Your task to perform on an android device: turn notification dots on Image 0: 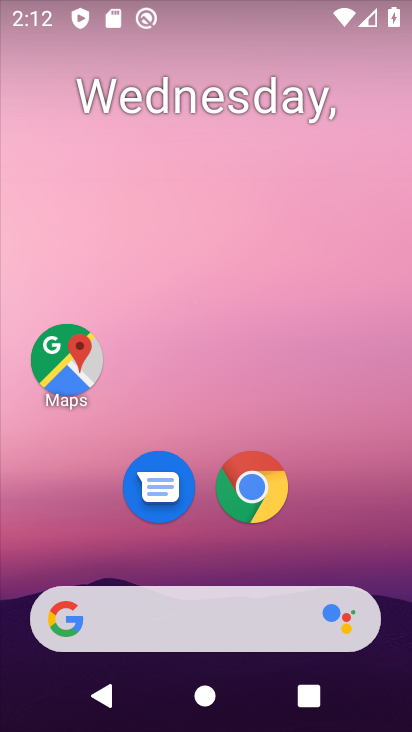
Step 0: drag from (261, 697) to (260, 39)
Your task to perform on an android device: turn notification dots on Image 1: 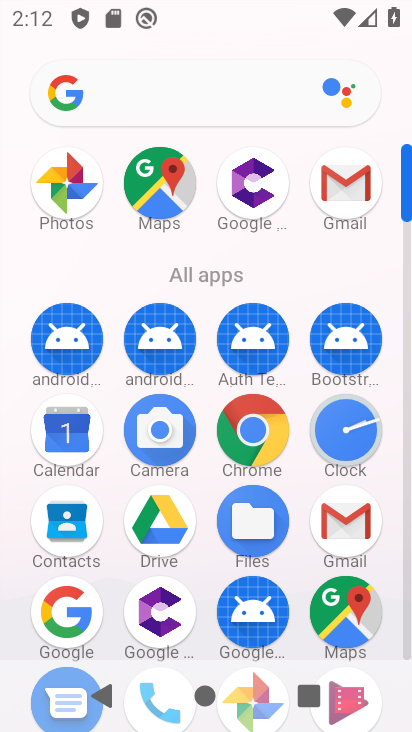
Step 1: drag from (293, 657) to (247, 187)
Your task to perform on an android device: turn notification dots on Image 2: 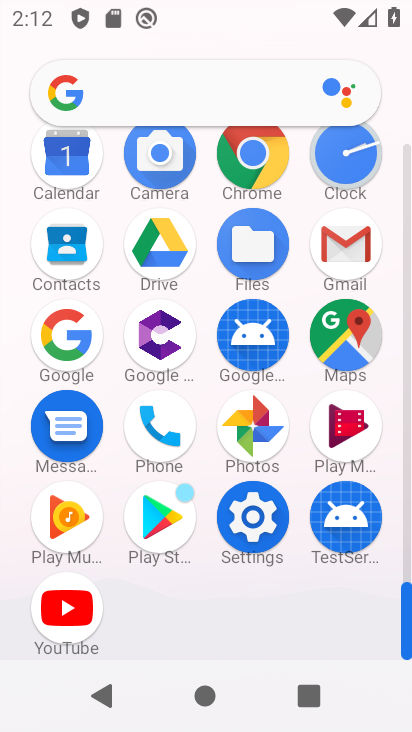
Step 2: click (256, 530)
Your task to perform on an android device: turn notification dots on Image 3: 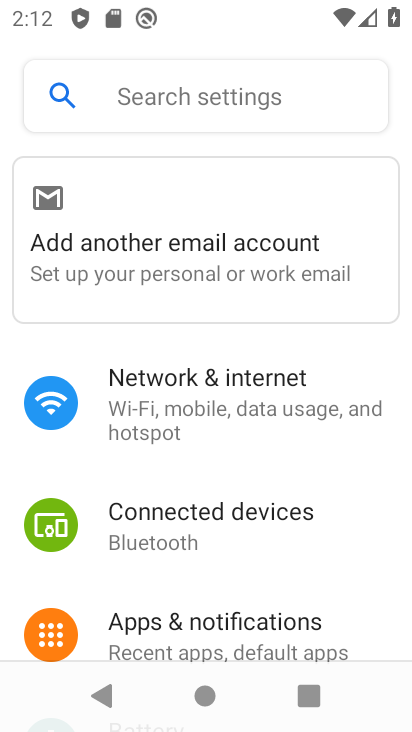
Step 3: drag from (257, 574) to (253, 174)
Your task to perform on an android device: turn notification dots on Image 4: 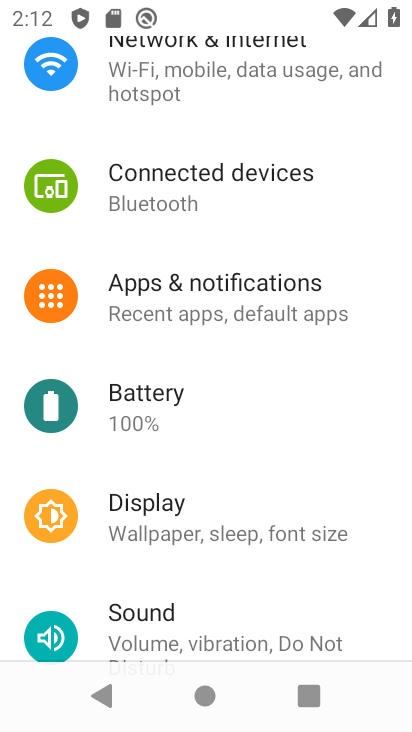
Step 4: click (295, 293)
Your task to perform on an android device: turn notification dots on Image 5: 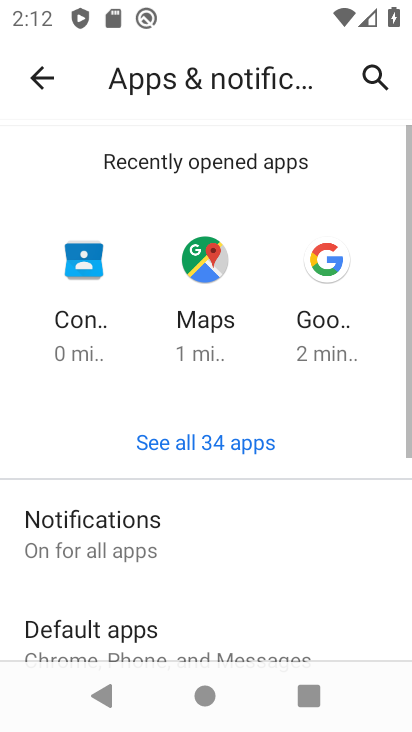
Step 5: click (115, 526)
Your task to perform on an android device: turn notification dots on Image 6: 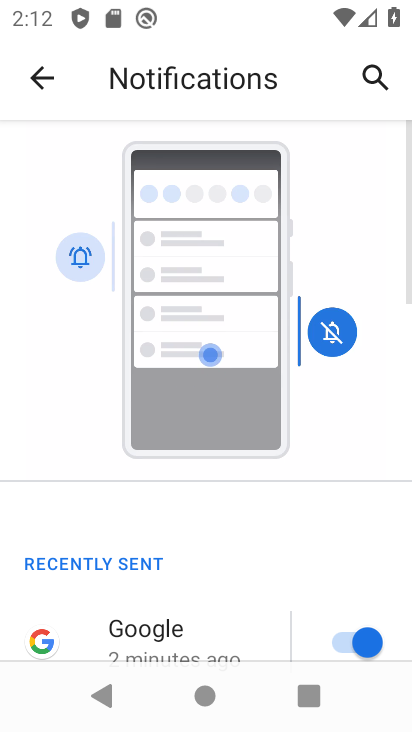
Step 6: drag from (274, 550) to (212, 121)
Your task to perform on an android device: turn notification dots on Image 7: 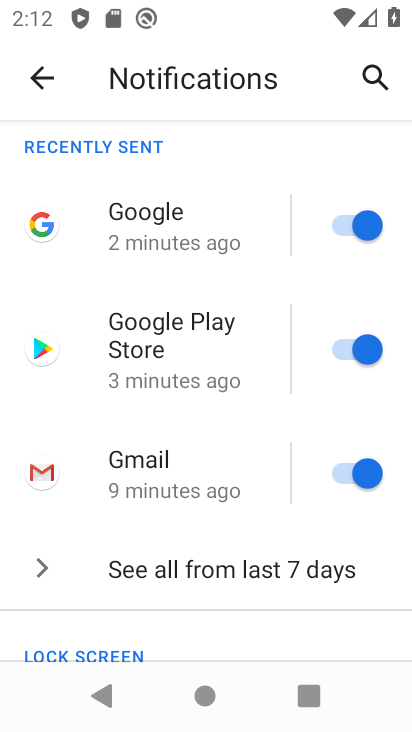
Step 7: drag from (211, 587) to (232, 98)
Your task to perform on an android device: turn notification dots on Image 8: 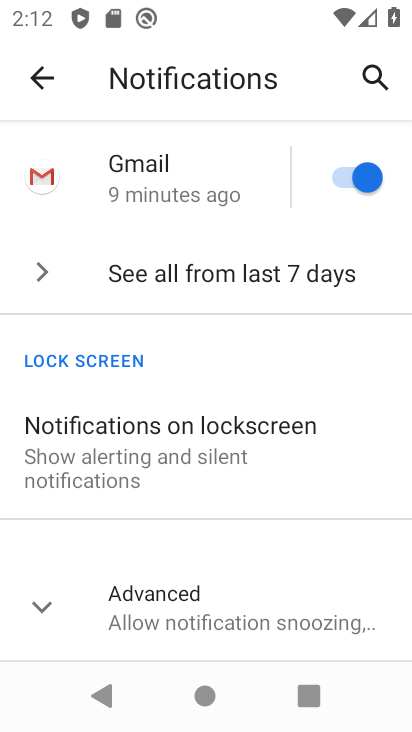
Step 8: drag from (242, 519) to (272, 189)
Your task to perform on an android device: turn notification dots on Image 9: 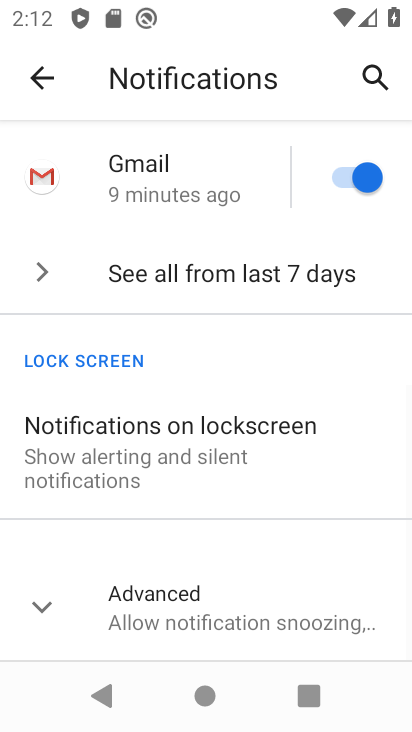
Step 9: click (220, 629)
Your task to perform on an android device: turn notification dots on Image 10: 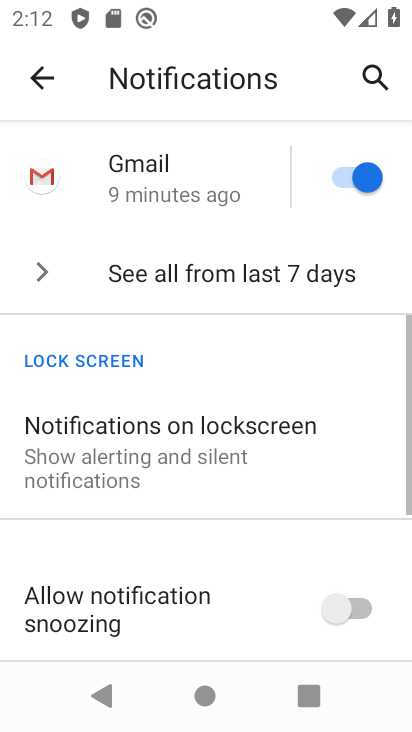
Step 10: click (228, 238)
Your task to perform on an android device: turn notification dots on Image 11: 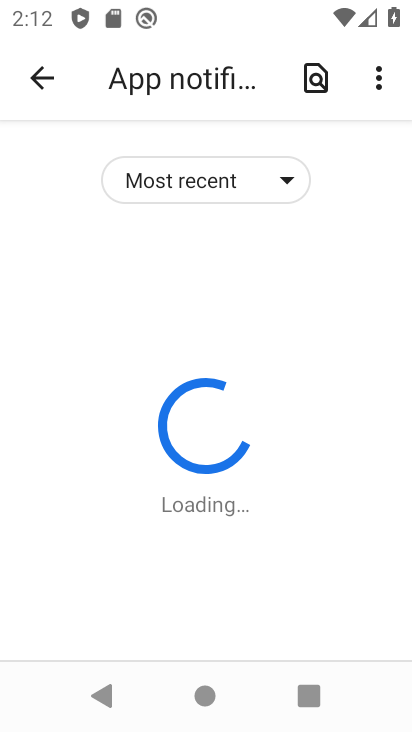
Step 11: drag from (148, 574) to (212, 220)
Your task to perform on an android device: turn notification dots on Image 12: 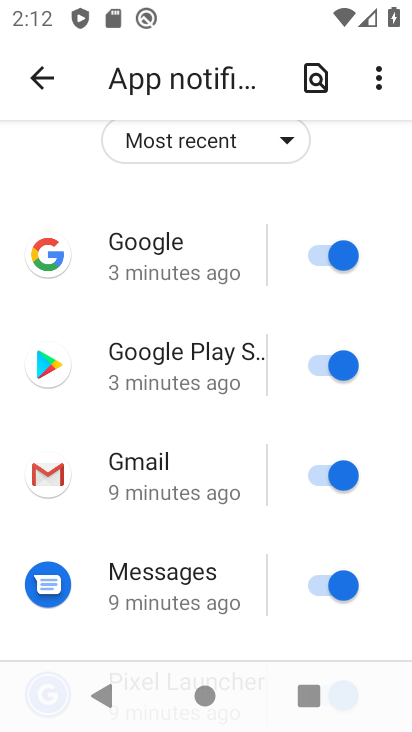
Step 12: click (41, 73)
Your task to perform on an android device: turn notification dots on Image 13: 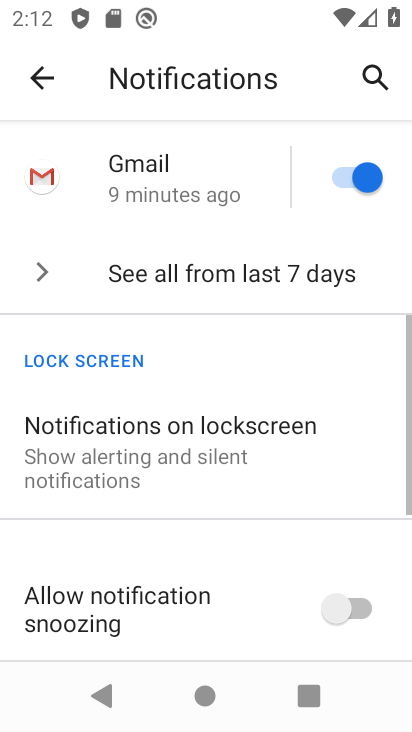
Step 13: task complete